Your task to perform on an android device: install app "Cash App" Image 0: 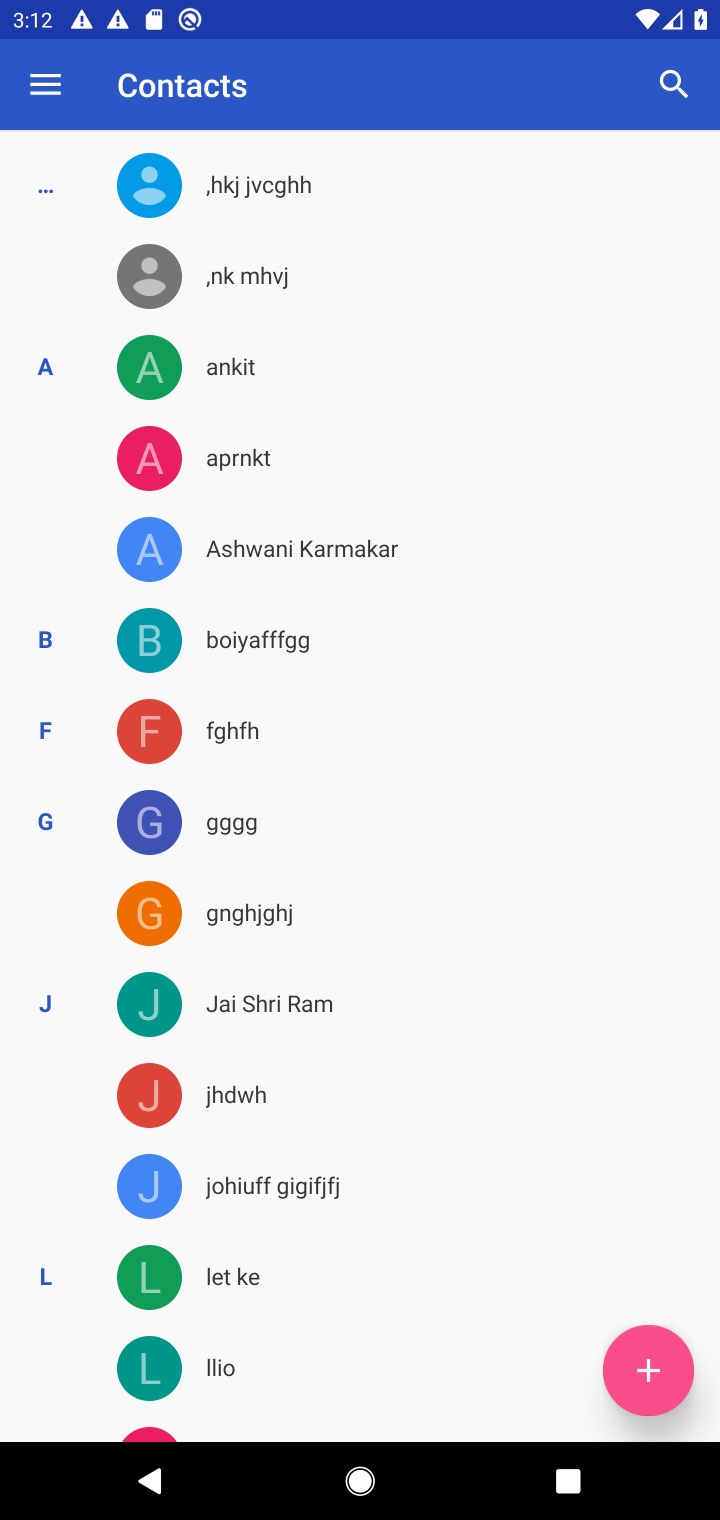
Step 0: press home button
Your task to perform on an android device: install app "Cash App" Image 1: 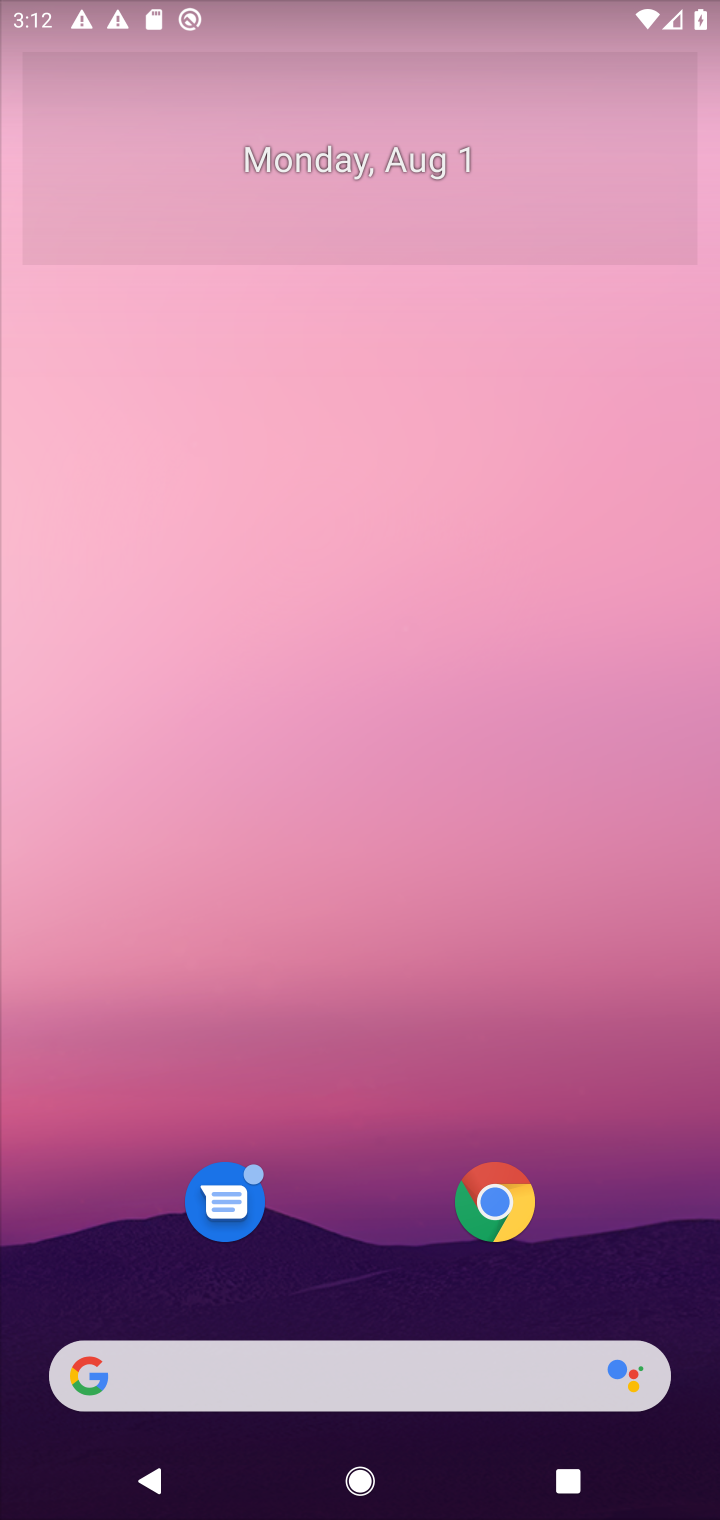
Step 1: drag from (300, 1226) to (351, 116)
Your task to perform on an android device: install app "Cash App" Image 2: 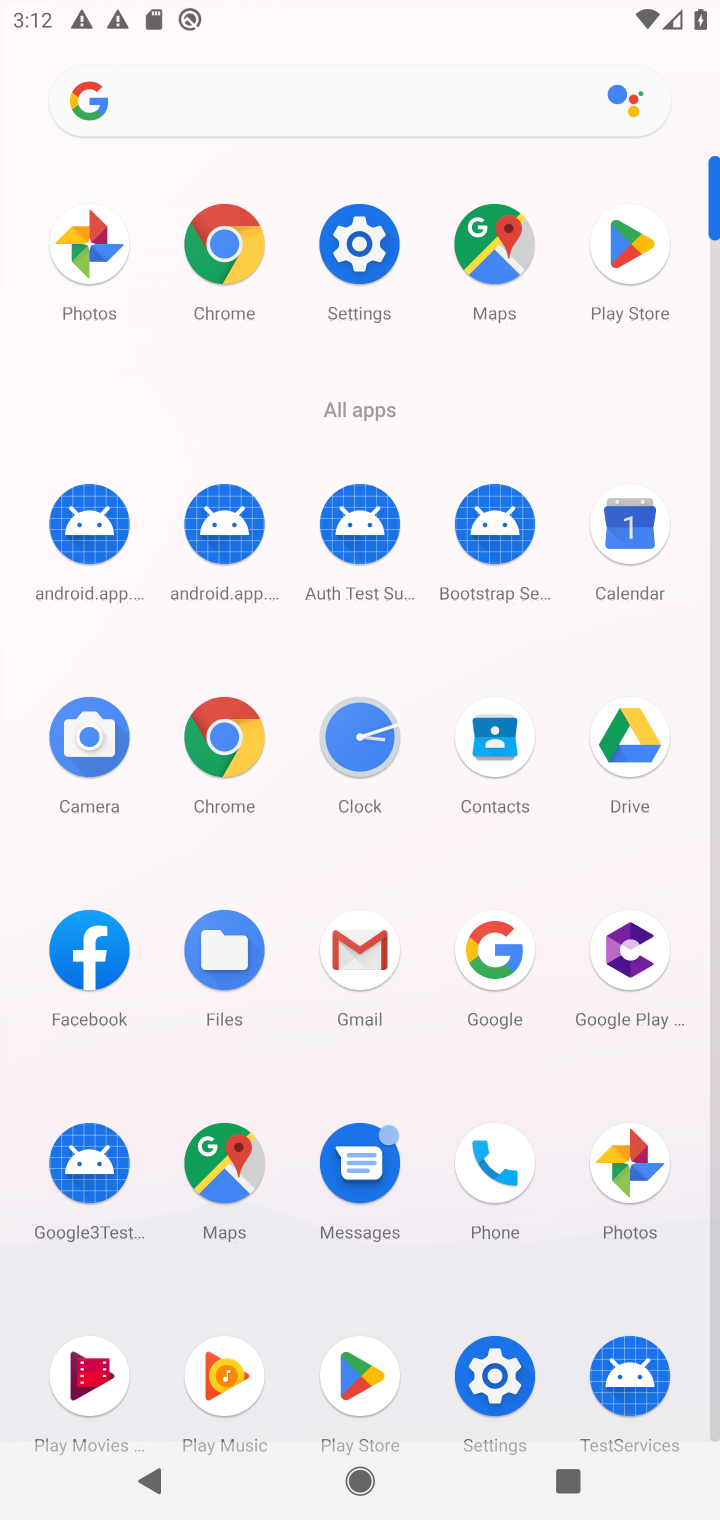
Step 2: click (633, 233)
Your task to perform on an android device: install app "Cash App" Image 3: 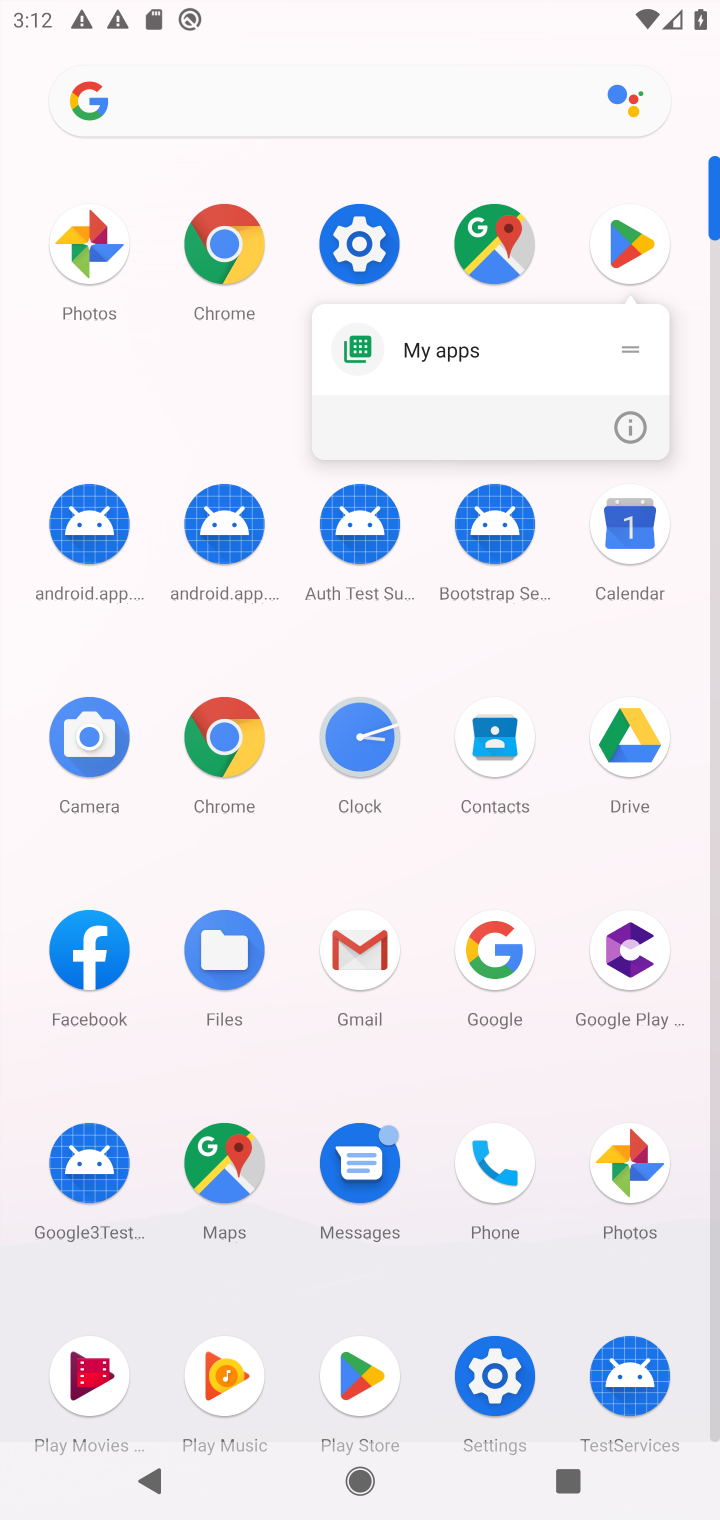
Step 3: click (627, 274)
Your task to perform on an android device: install app "Cash App" Image 4: 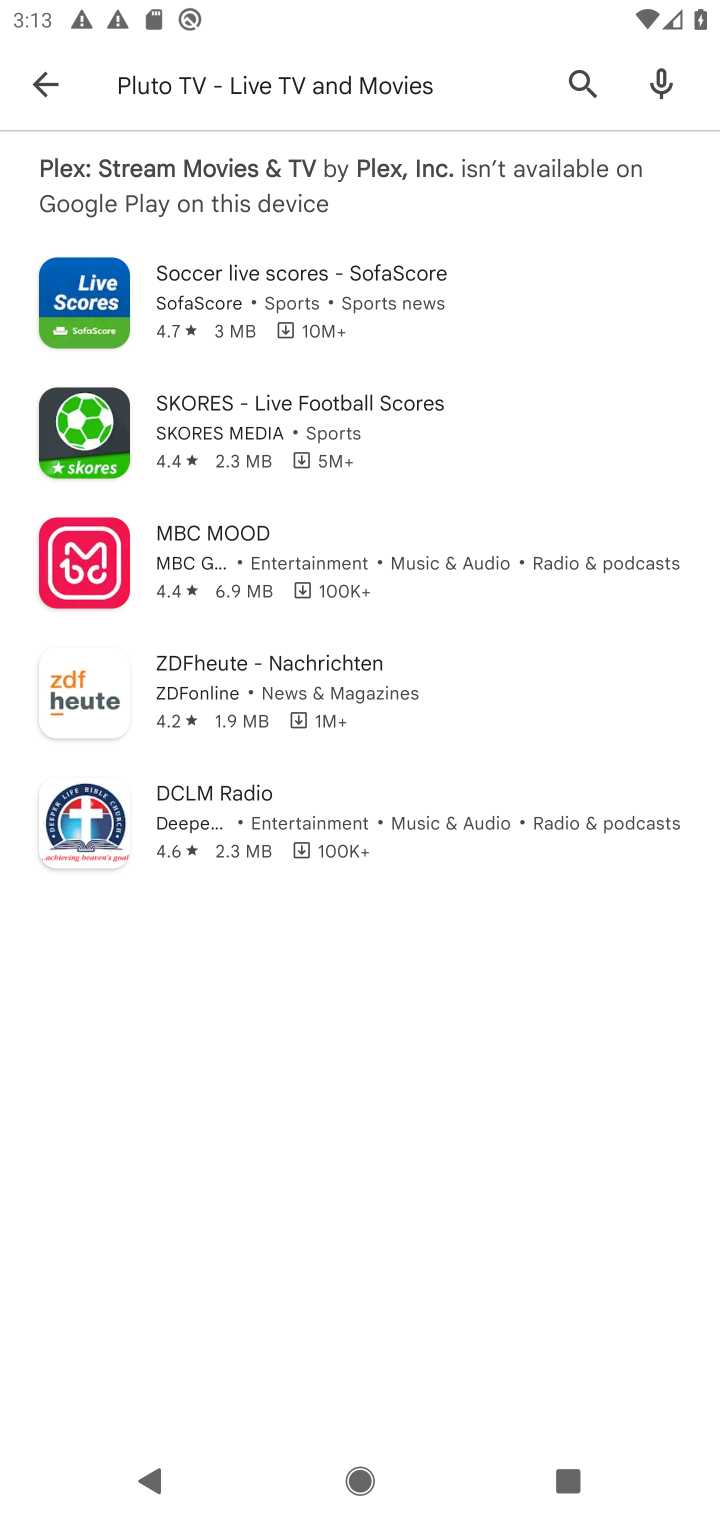
Step 4: click (433, 96)
Your task to perform on an android device: install app "Cash App" Image 5: 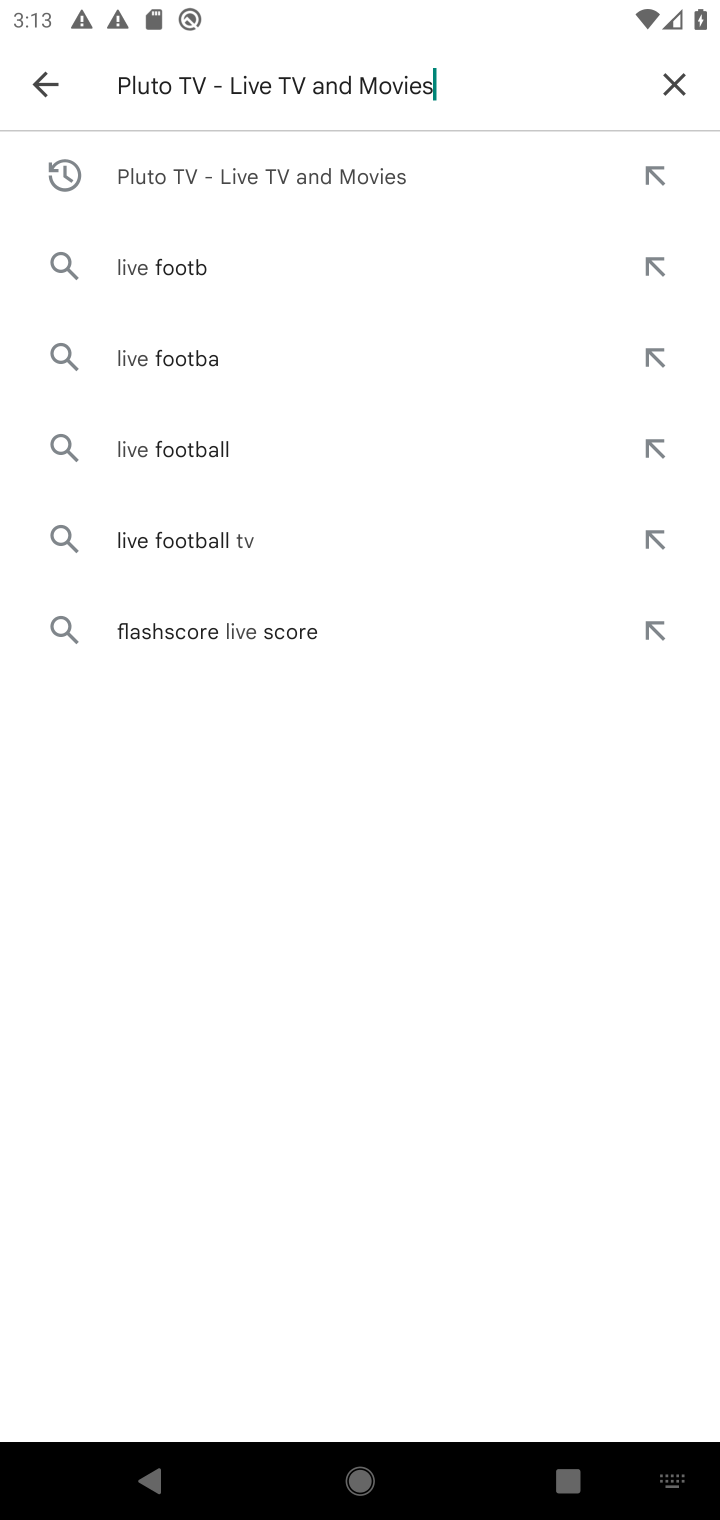
Step 5: click (689, 68)
Your task to perform on an android device: install app "Cash App" Image 6: 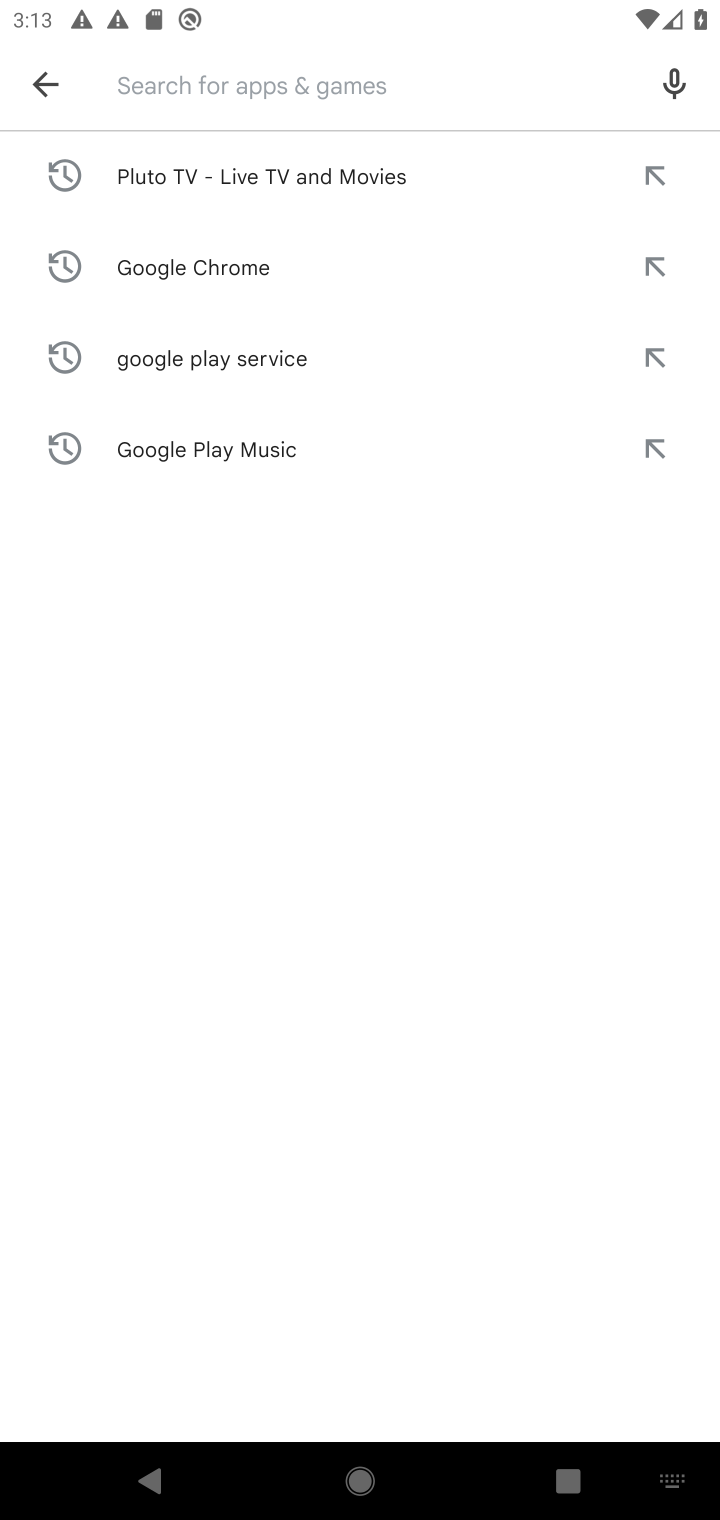
Step 6: type "Cash App"
Your task to perform on an android device: install app "Cash App" Image 7: 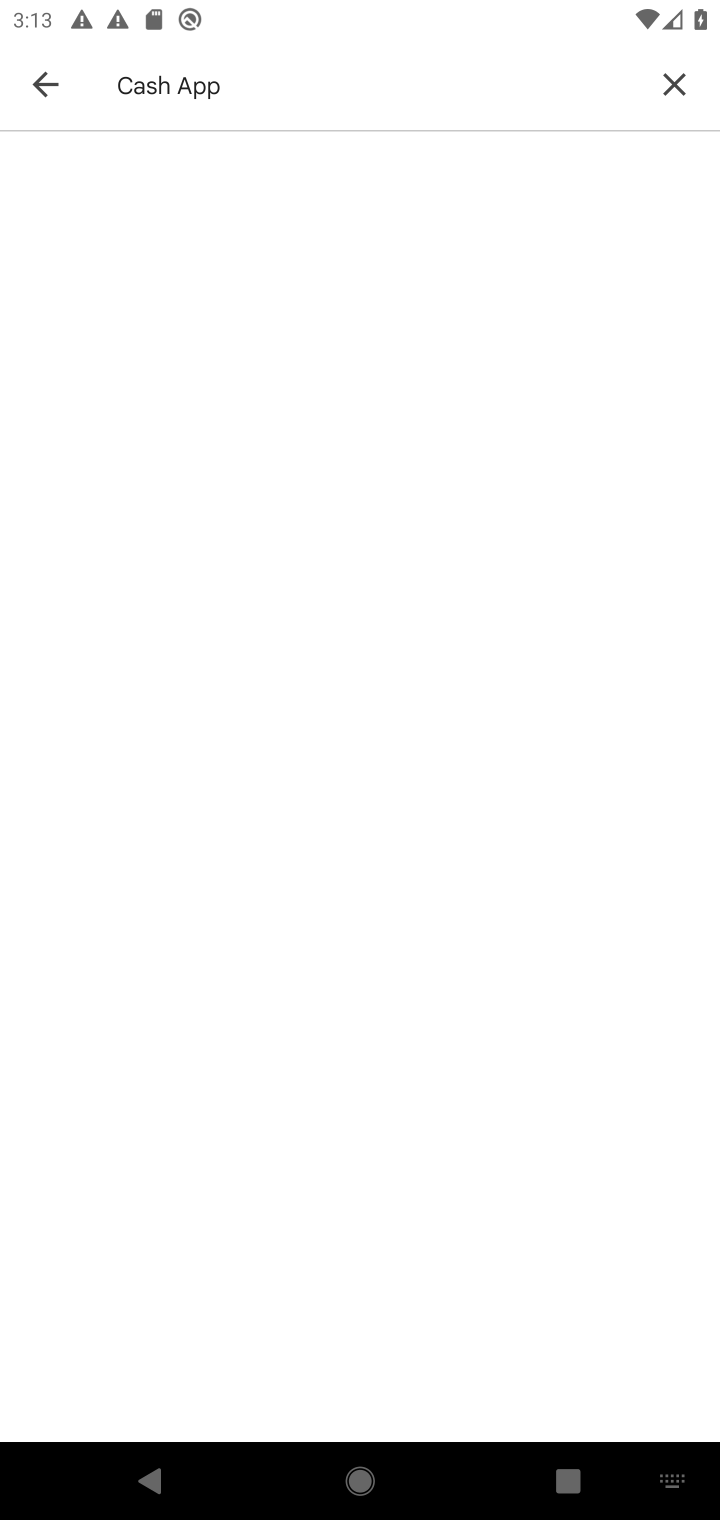
Step 7: press enter
Your task to perform on an android device: install app "Cash App" Image 8: 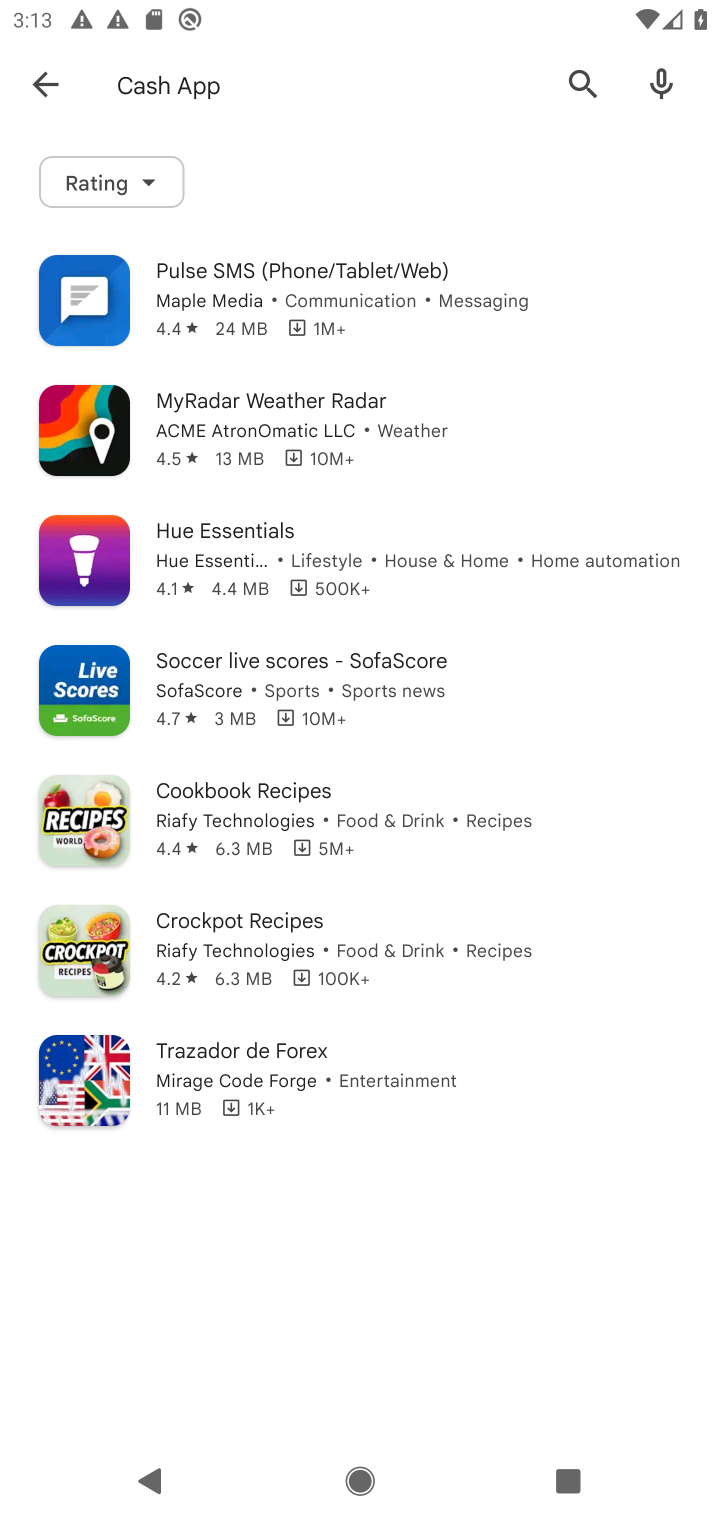
Step 8: press back button
Your task to perform on an android device: install app "Cash App" Image 9: 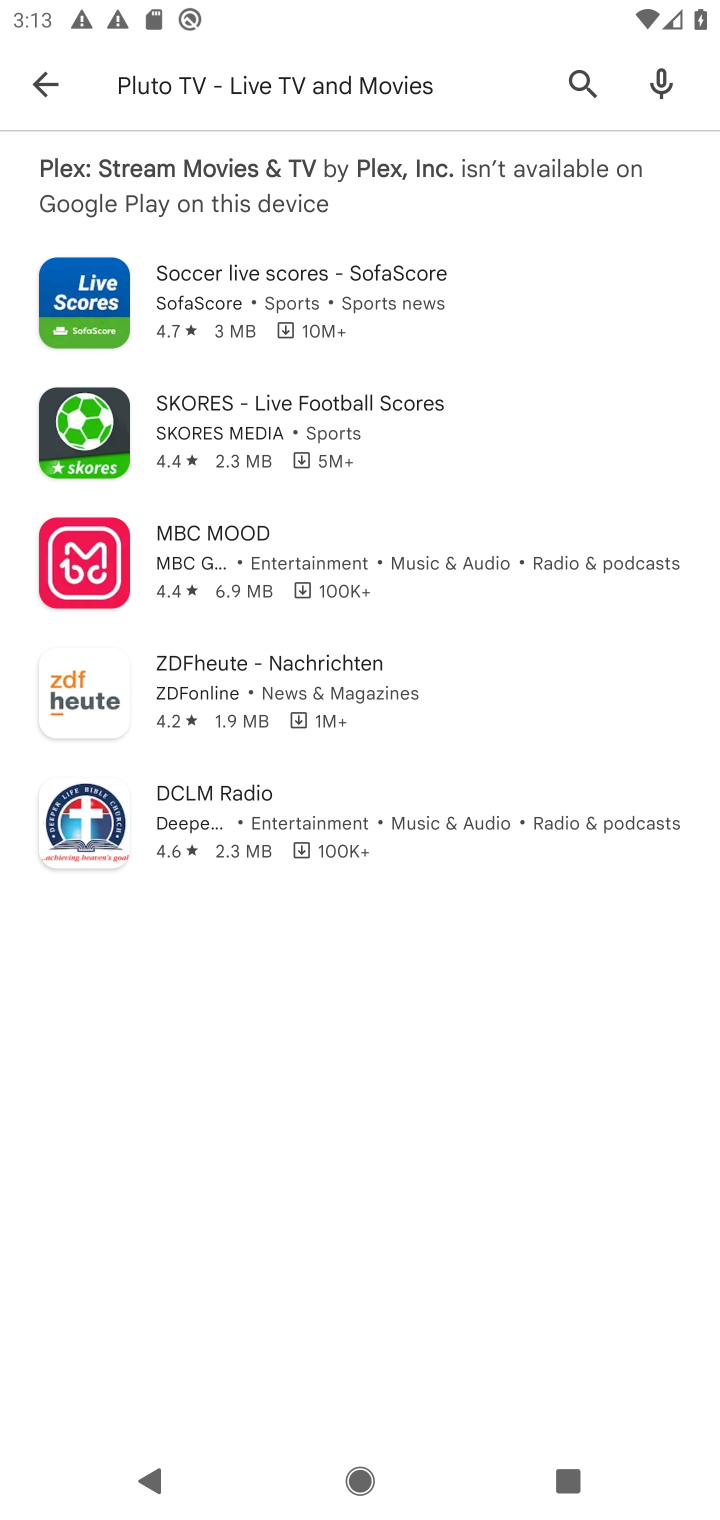
Step 9: press back button
Your task to perform on an android device: install app "Cash App" Image 10: 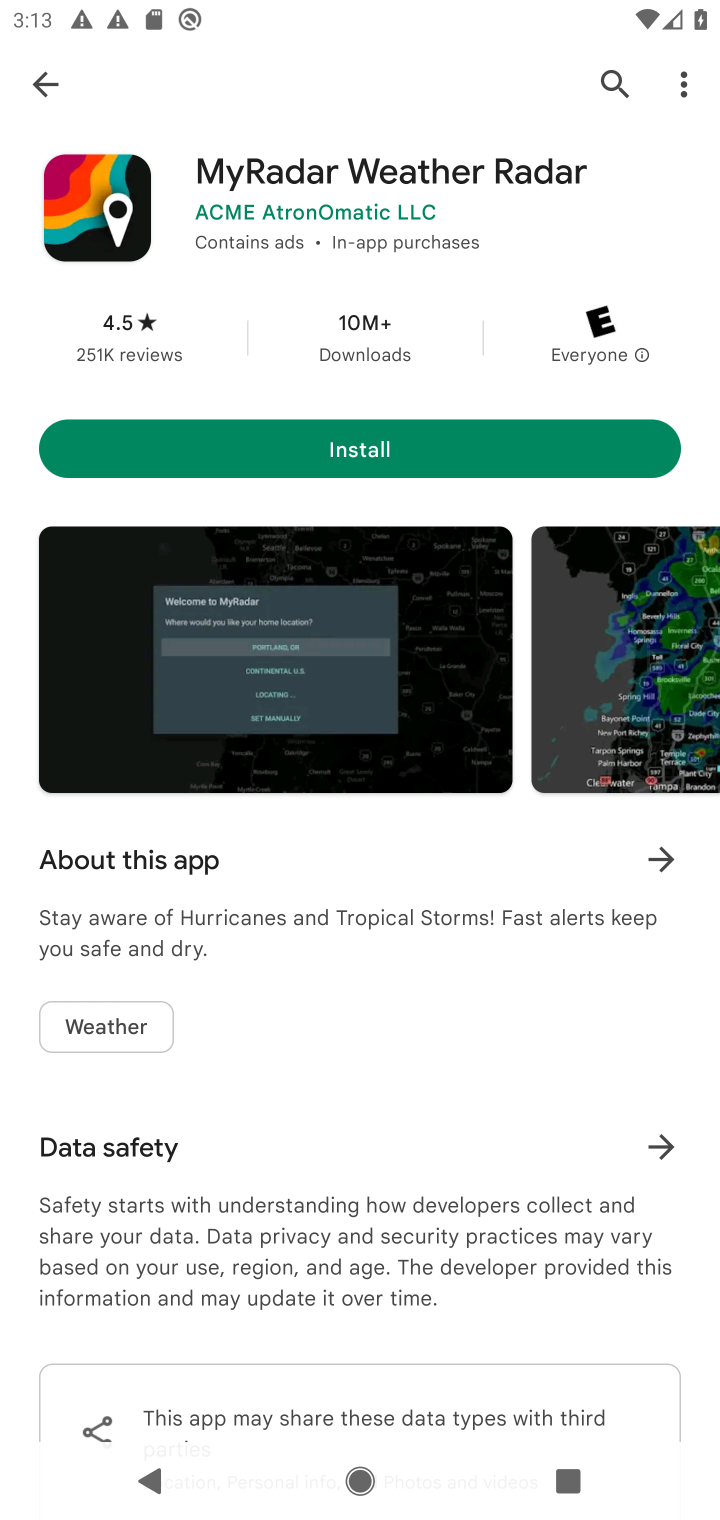
Step 10: press back button
Your task to perform on an android device: install app "Cash App" Image 11: 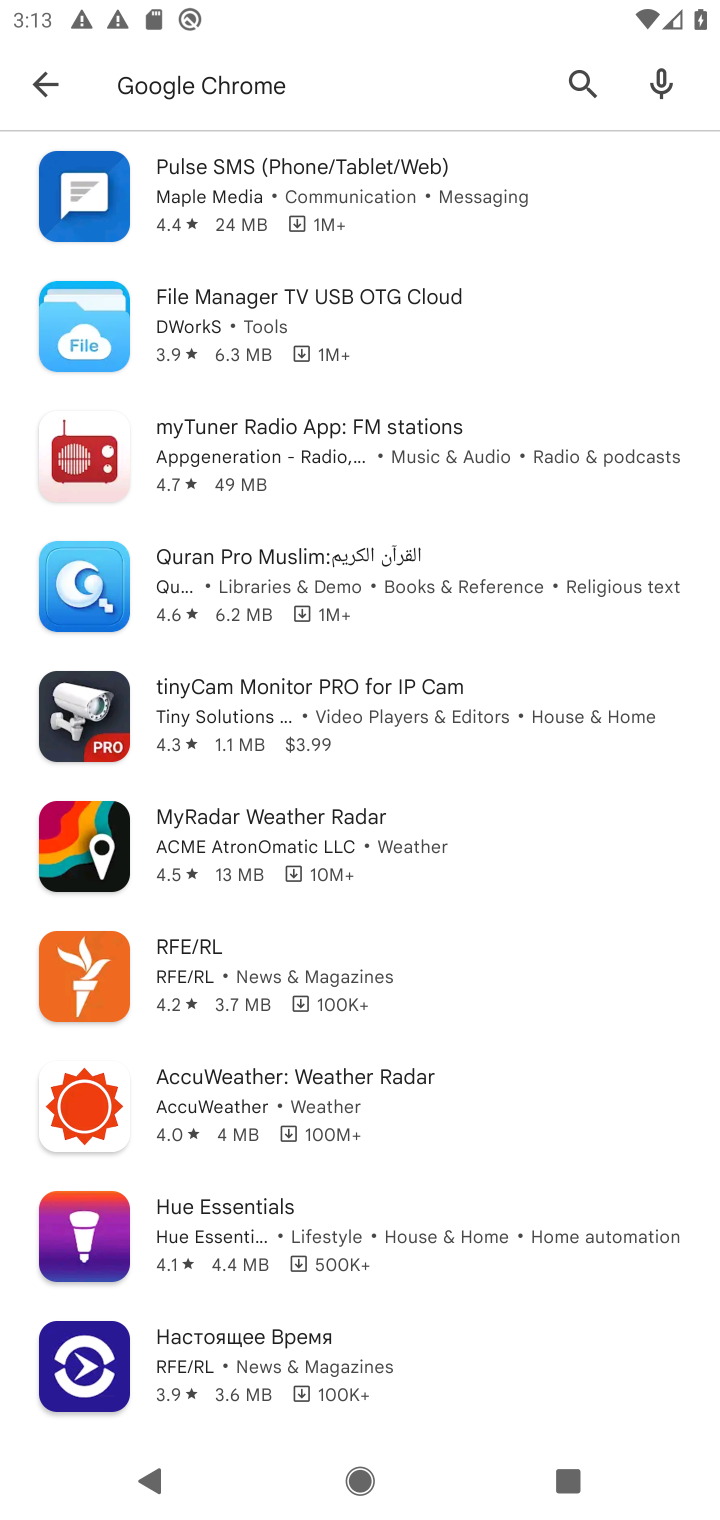
Step 11: press back button
Your task to perform on an android device: install app "Cash App" Image 12: 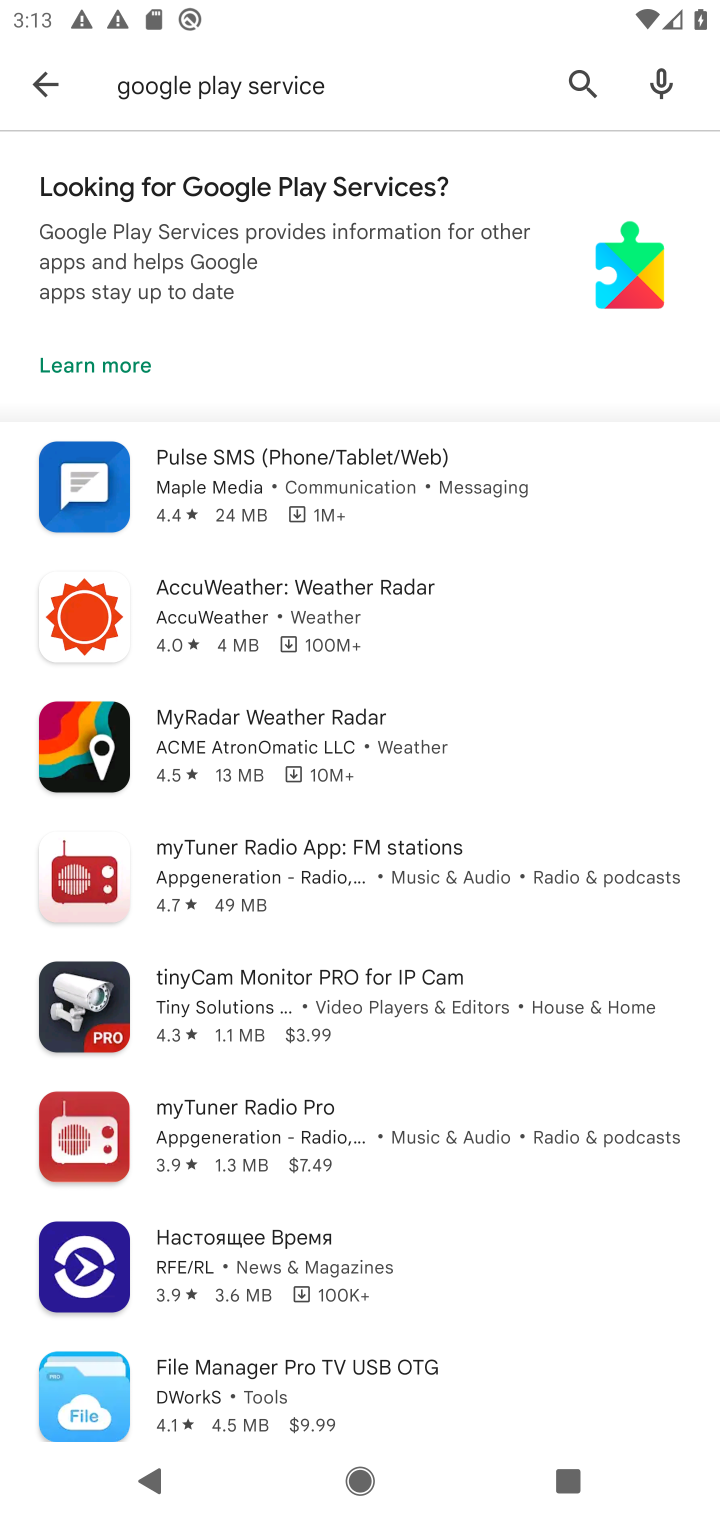
Step 12: press back button
Your task to perform on an android device: install app "Cash App" Image 13: 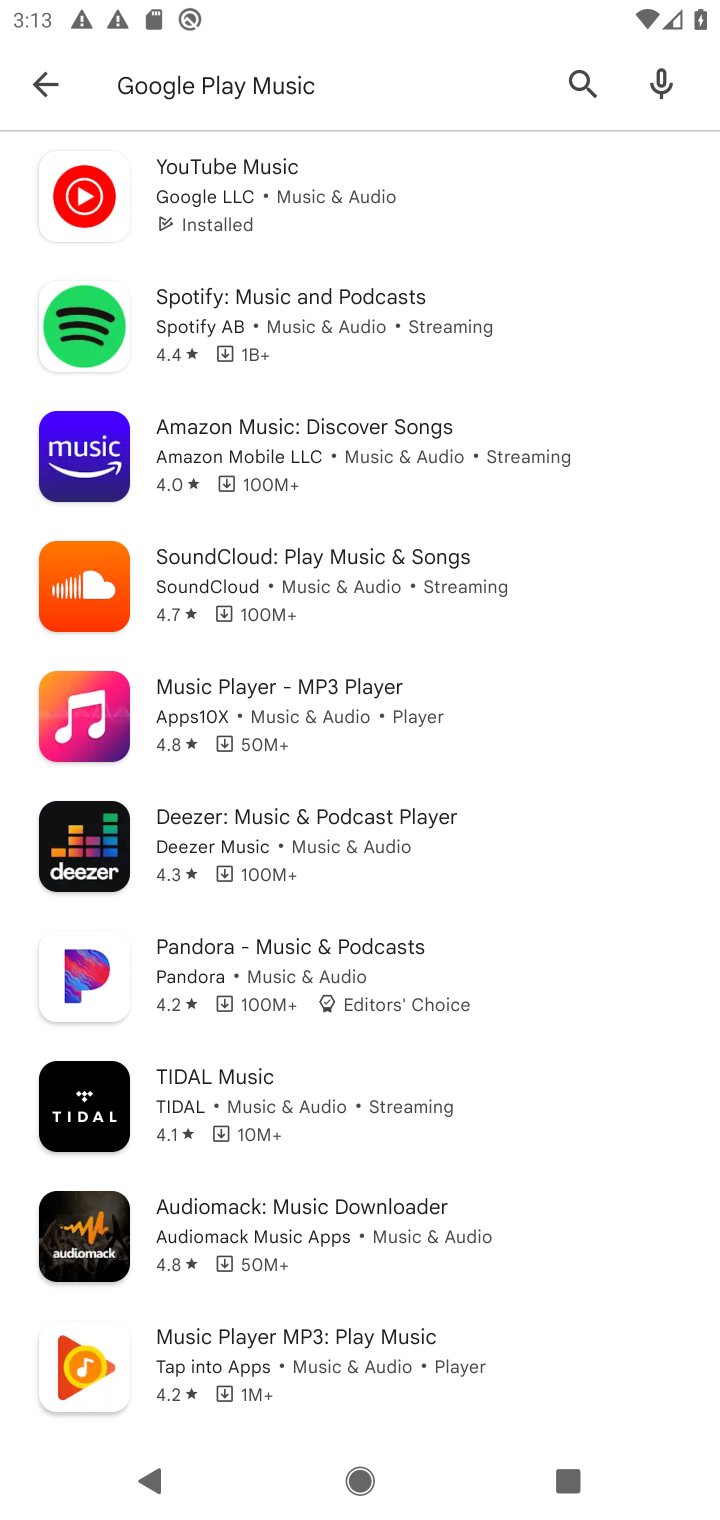
Step 13: press back button
Your task to perform on an android device: install app "Cash App" Image 14: 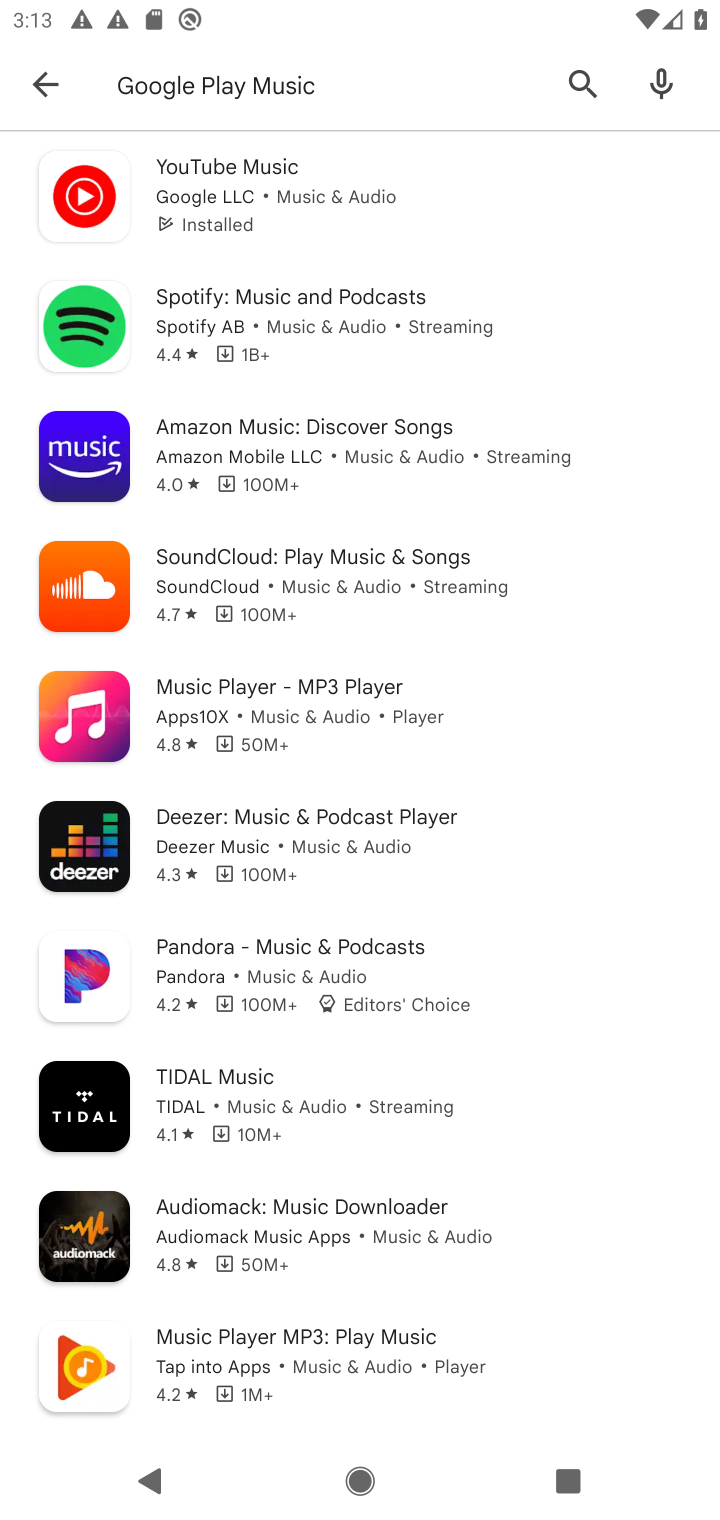
Step 14: press back button
Your task to perform on an android device: install app "Cash App" Image 15: 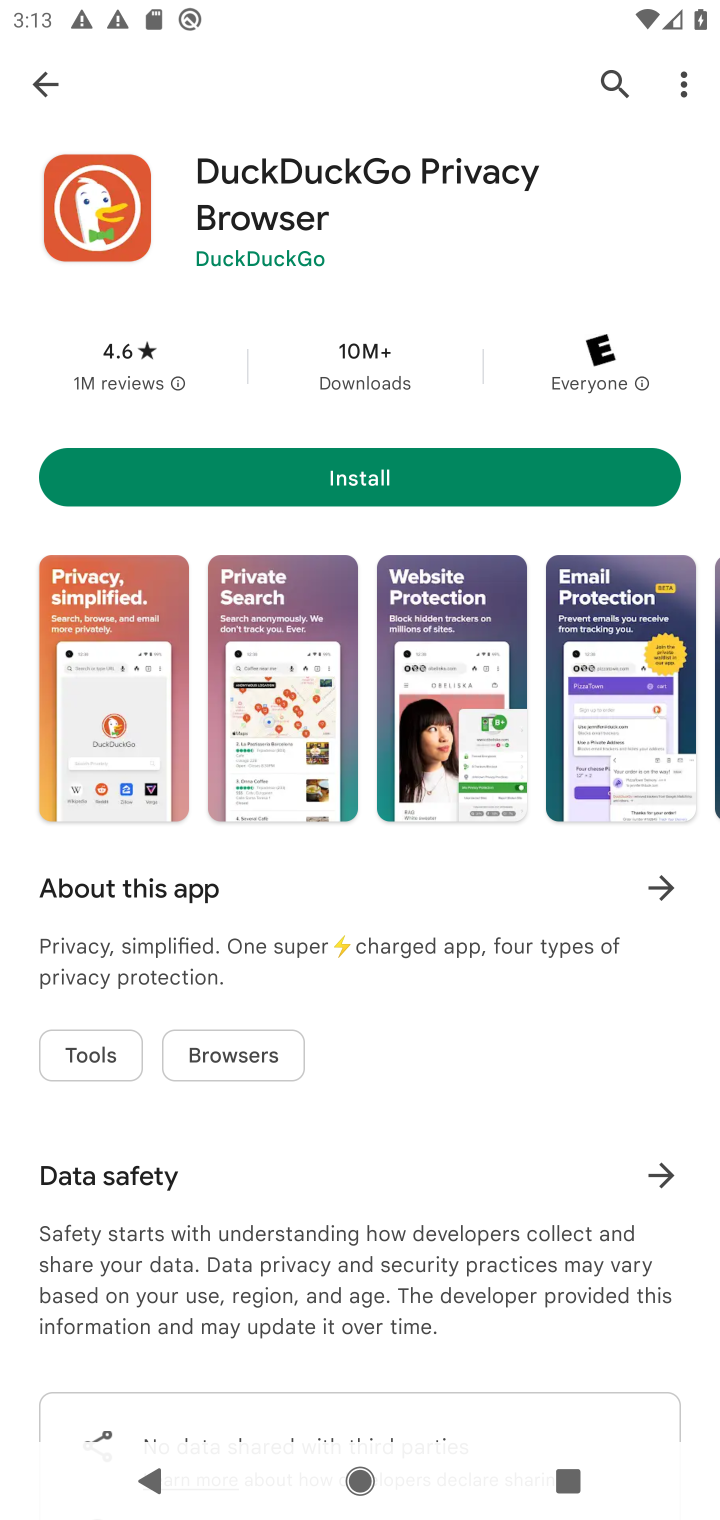
Step 15: press back button
Your task to perform on an android device: install app "Cash App" Image 16: 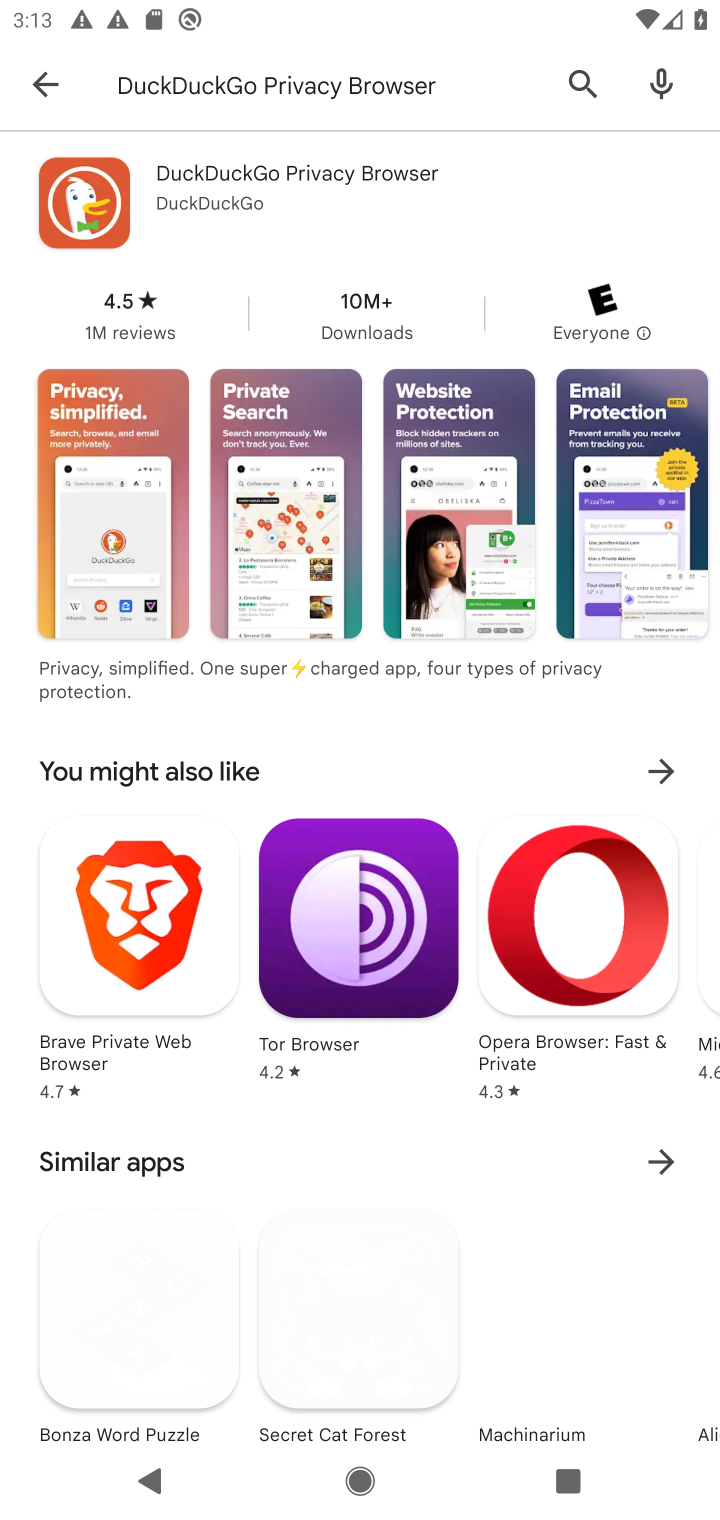
Step 16: press back button
Your task to perform on an android device: install app "Cash App" Image 17: 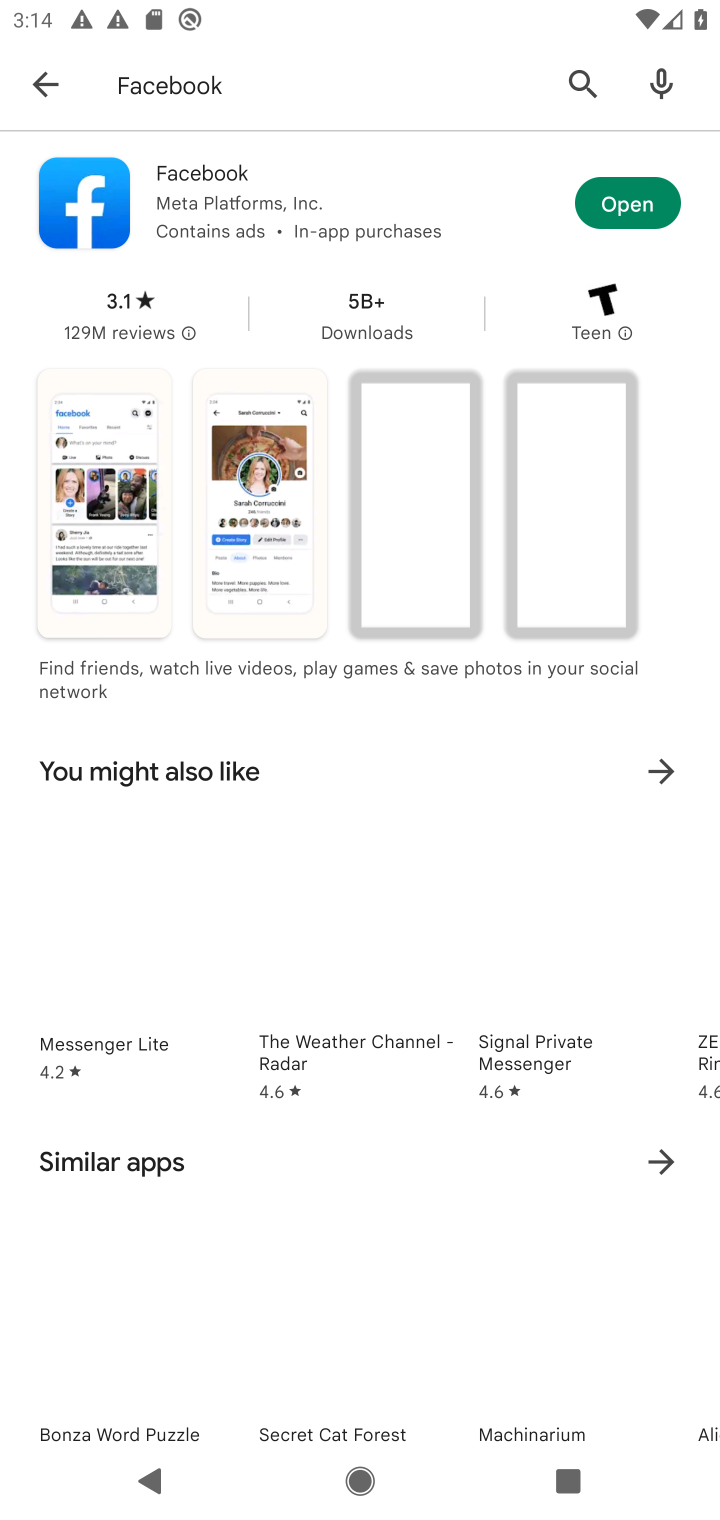
Step 17: press back button
Your task to perform on an android device: install app "Cash App" Image 18: 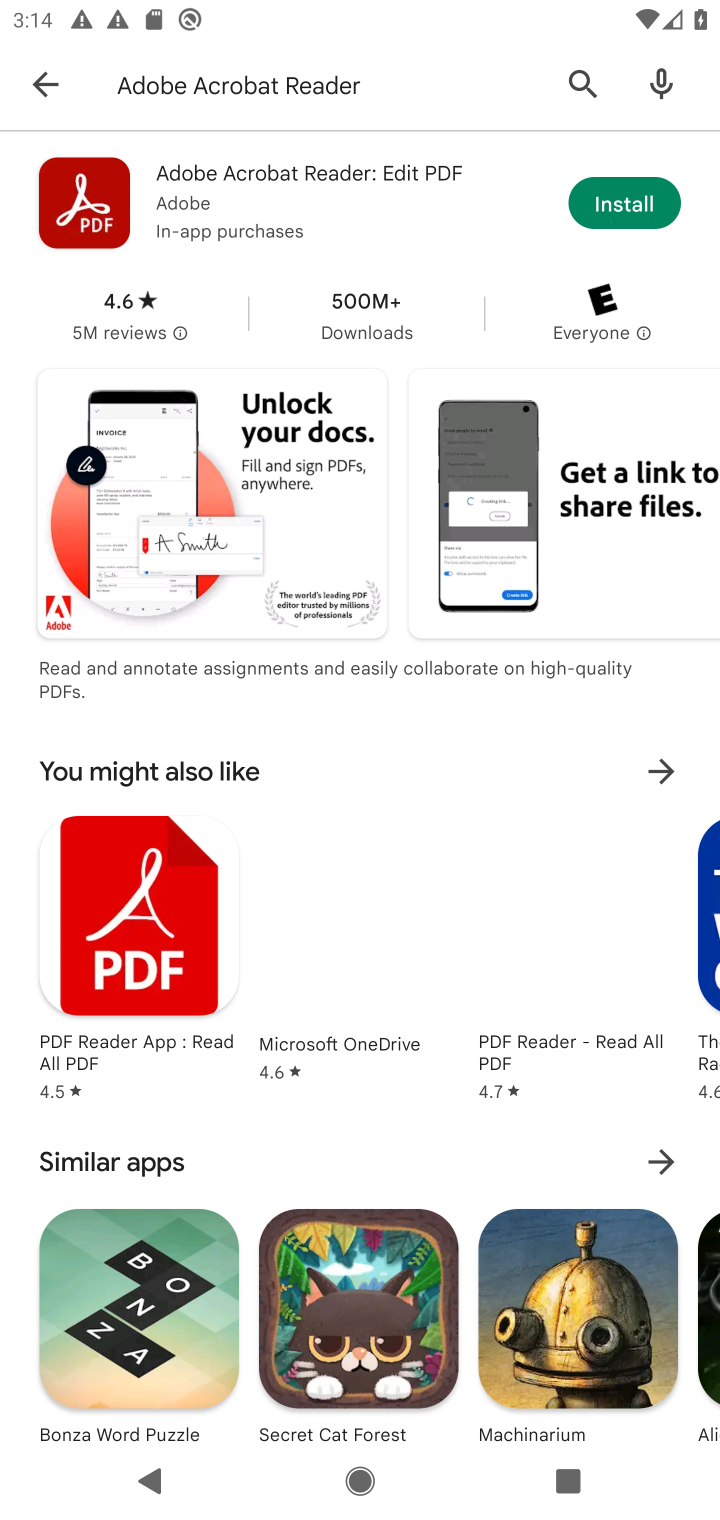
Step 18: press back button
Your task to perform on an android device: install app "Cash App" Image 19: 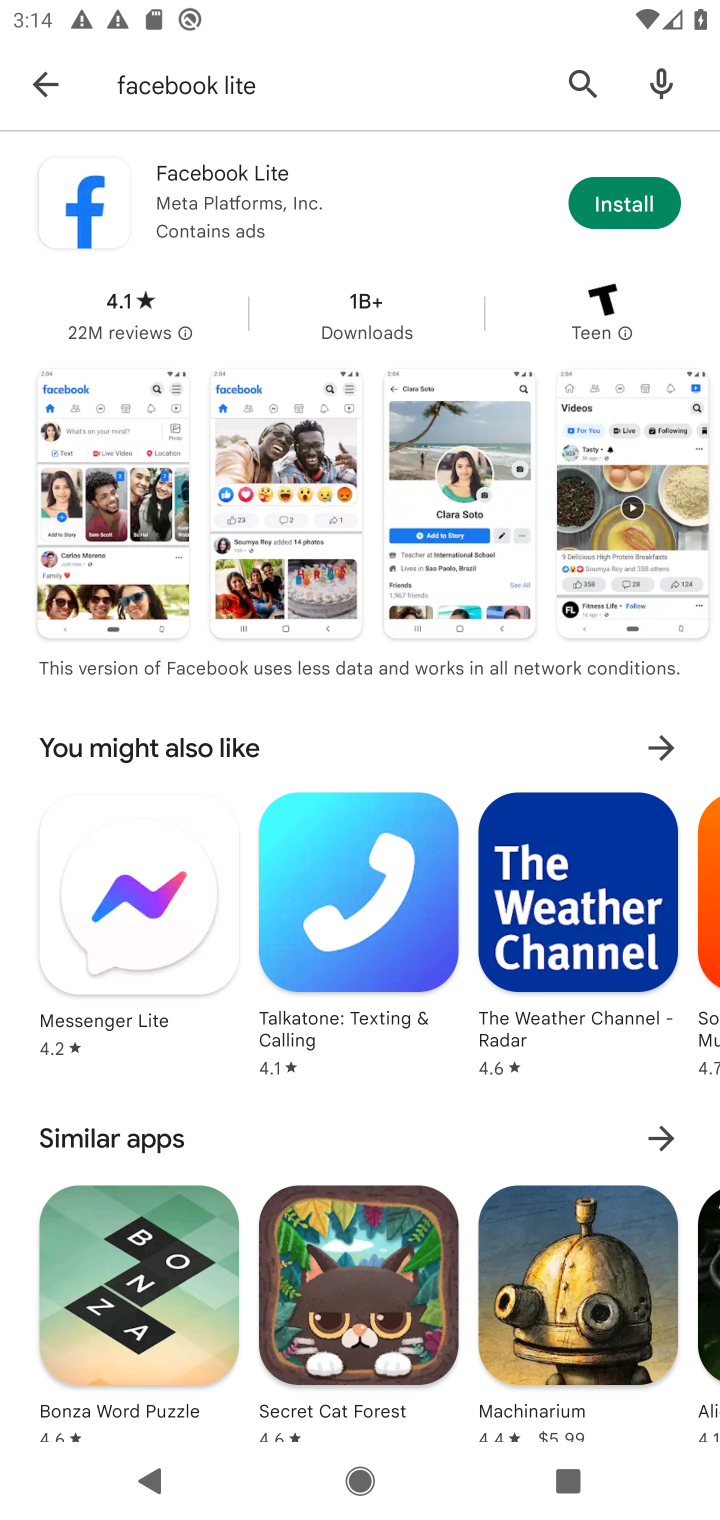
Step 19: click (439, 79)
Your task to perform on an android device: install app "Cash App" Image 20: 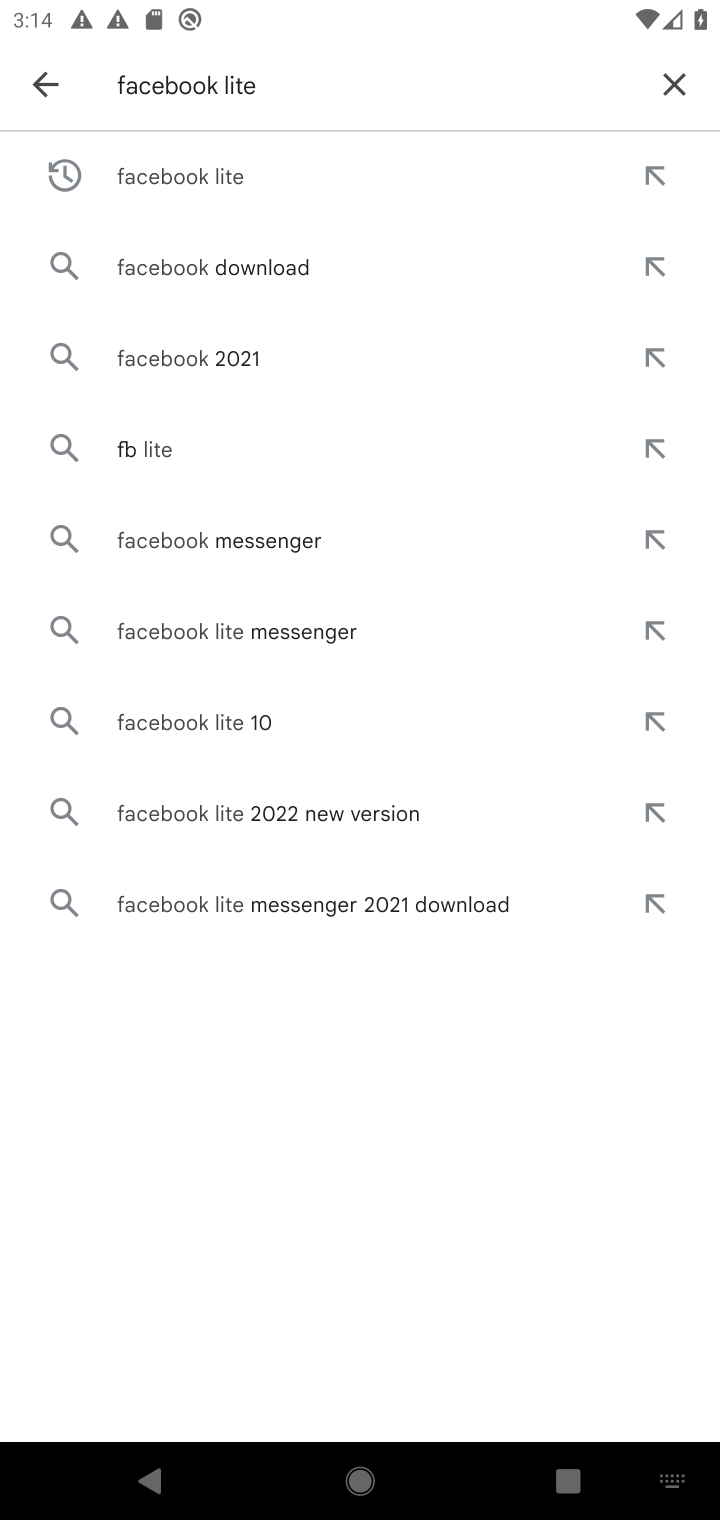
Step 20: click (664, 52)
Your task to perform on an android device: install app "Cash App" Image 21: 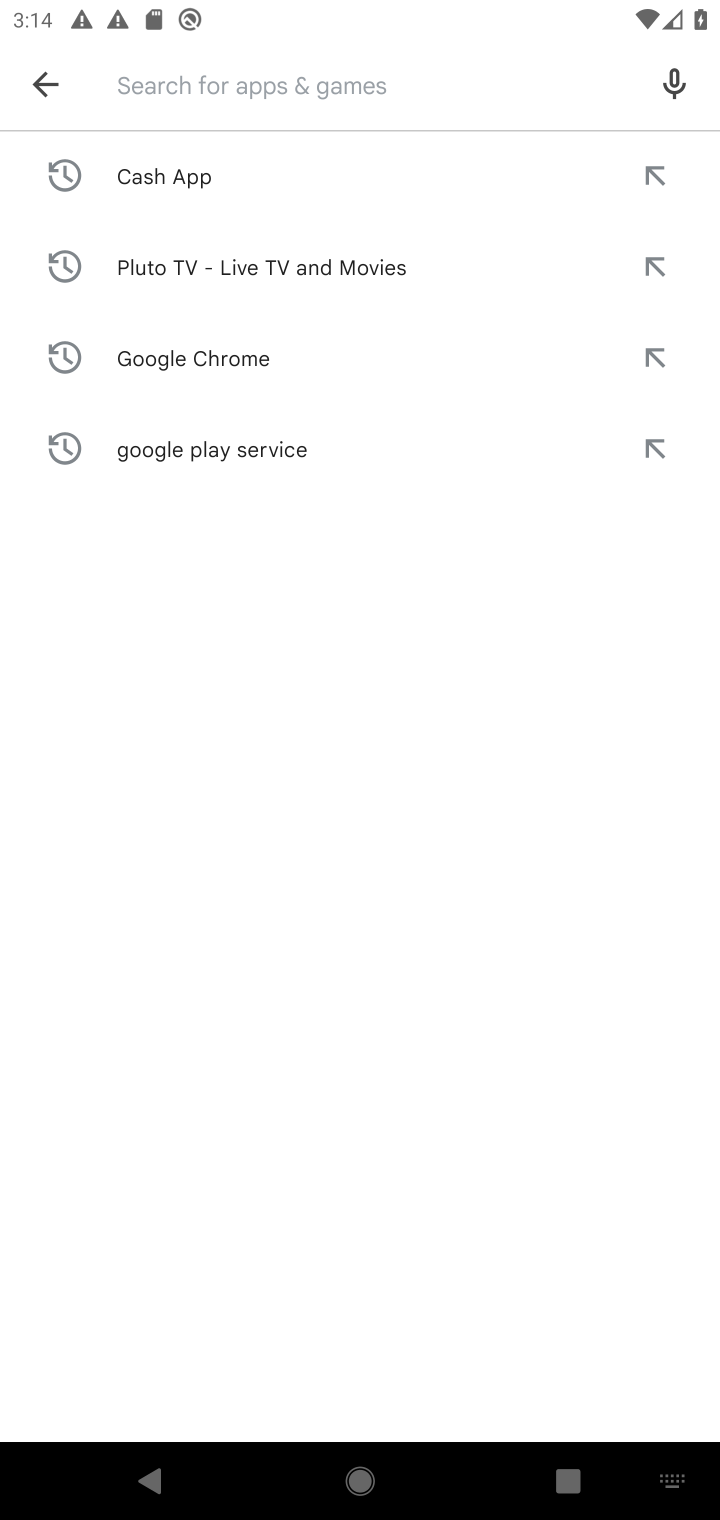
Step 21: type "Cash App"
Your task to perform on an android device: install app "Cash App" Image 22: 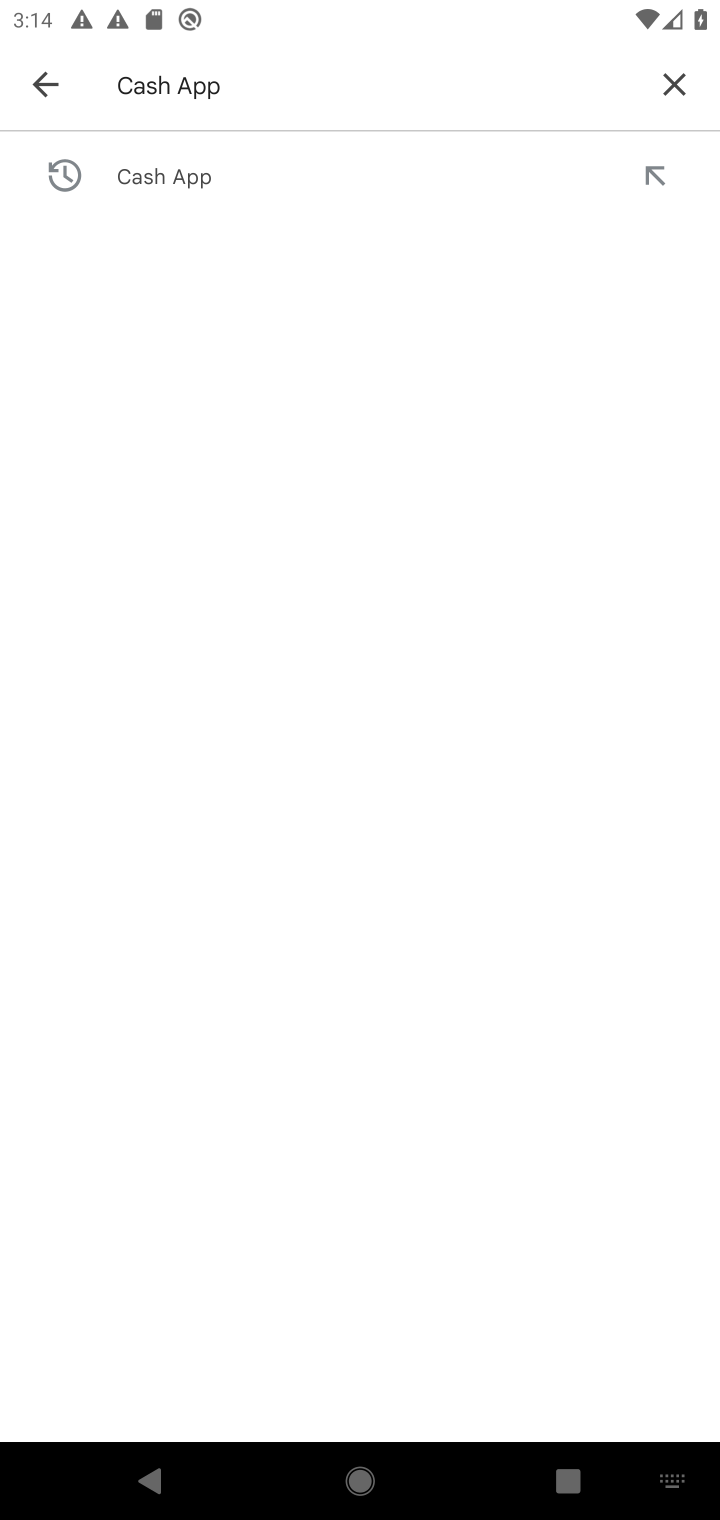
Step 22: click (219, 181)
Your task to perform on an android device: install app "Cash App" Image 23: 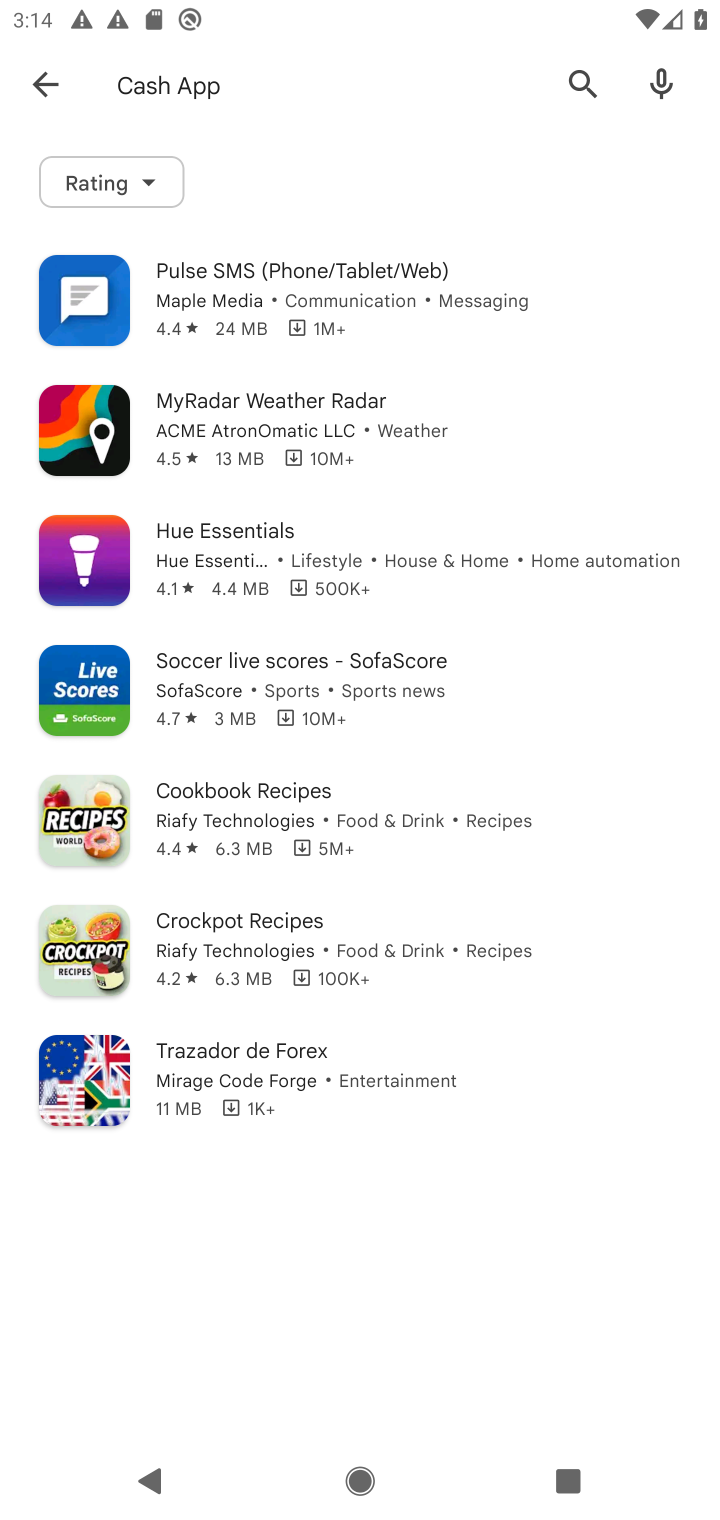
Step 23: task complete